Your task to perform on an android device: Open Chrome and go to settings Image 0: 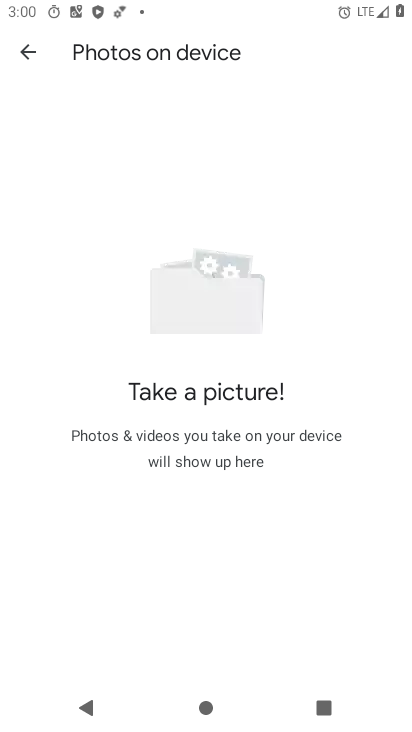
Step 0: press home button
Your task to perform on an android device: Open Chrome and go to settings Image 1: 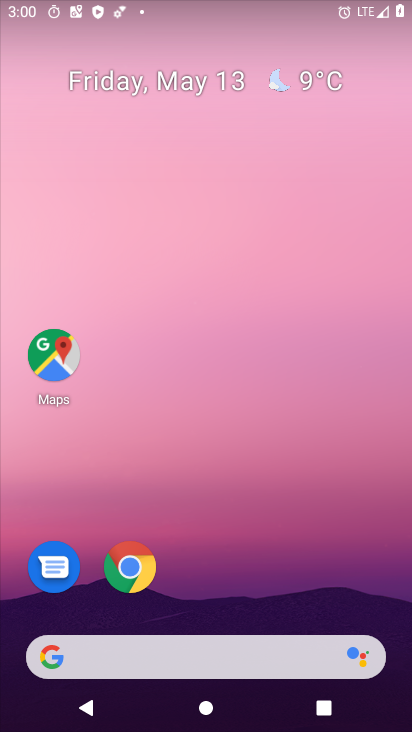
Step 1: click (147, 574)
Your task to perform on an android device: Open Chrome and go to settings Image 2: 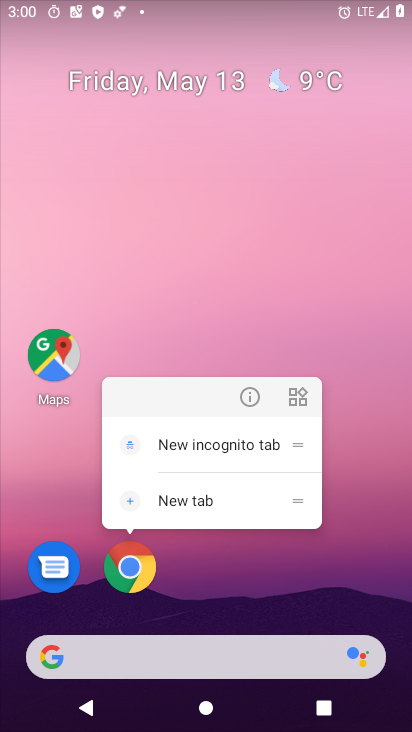
Step 2: click (127, 561)
Your task to perform on an android device: Open Chrome and go to settings Image 3: 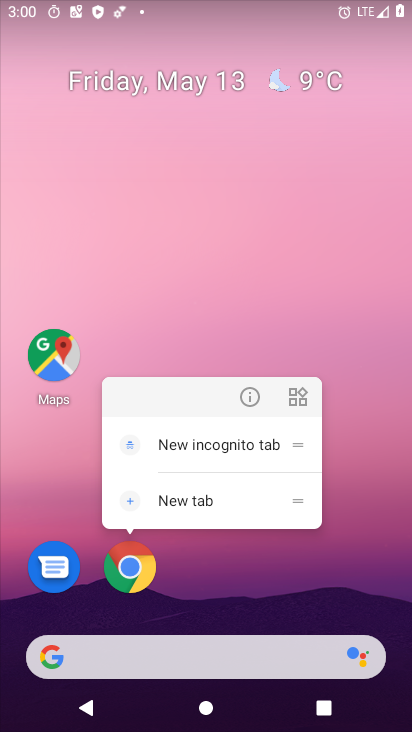
Step 3: click (128, 562)
Your task to perform on an android device: Open Chrome and go to settings Image 4: 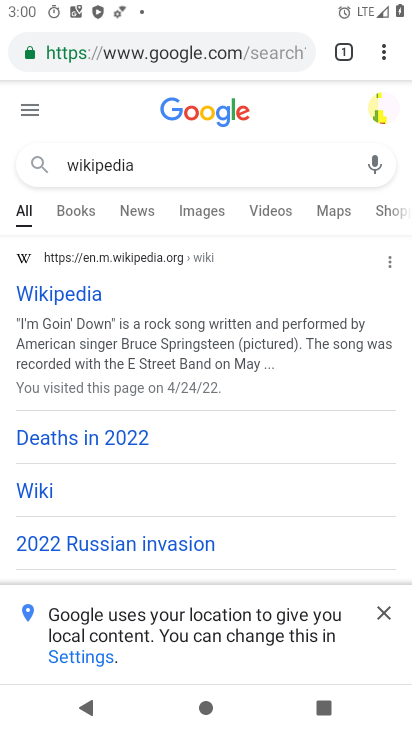
Step 4: click (388, 56)
Your task to perform on an android device: Open Chrome and go to settings Image 5: 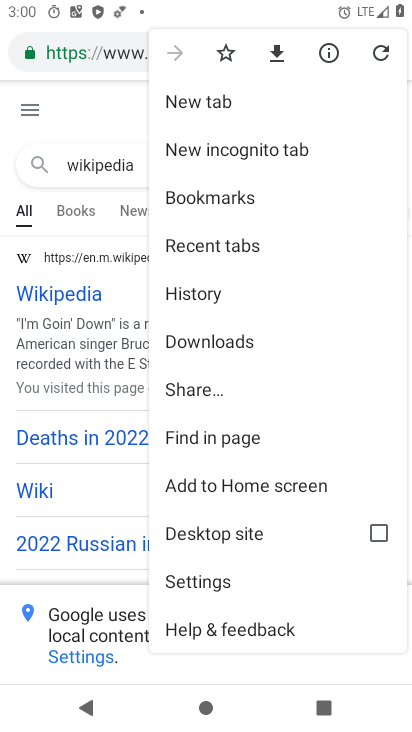
Step 5: click (214, 574)
Your task to perform on an android device: Open Chrome and go to settings Image 6: 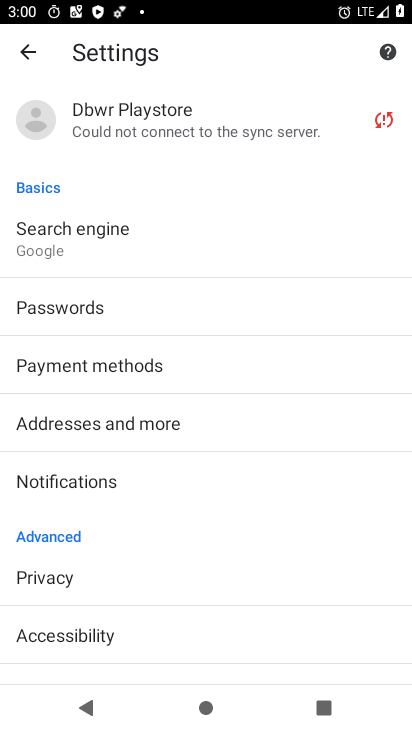
Step 6: task complete